Your task to perform on an android device: check battery use Image 0: 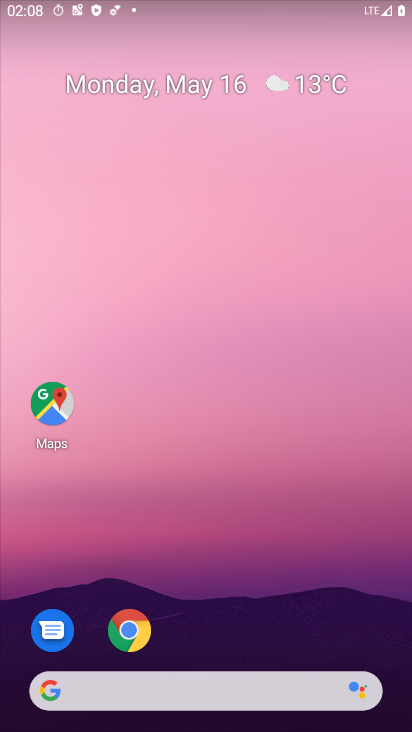
Step 0: drag from (271, 640) to (348, 222)
Your task to perform on an android device: check battery use Image 1: 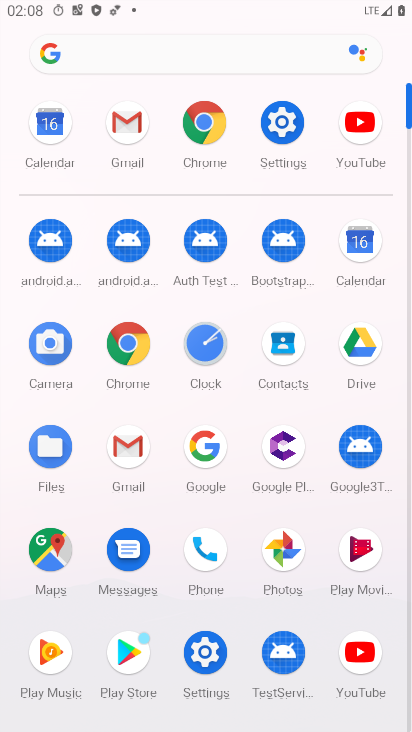
Step 1: click (204, 667)
Your task to perform on an android device: check battery use Image 2: 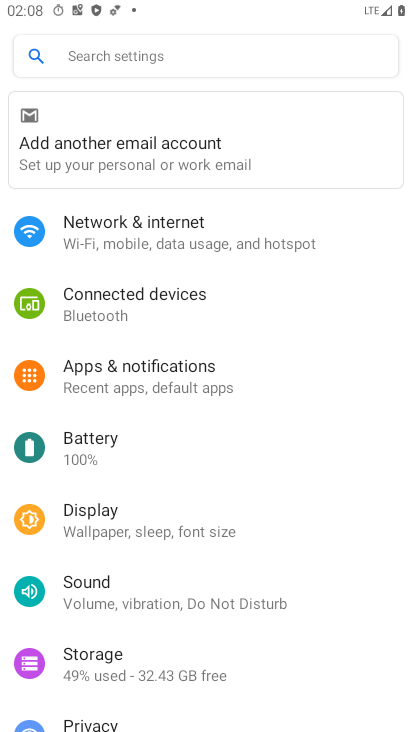
Step 2: click (107, 454)
Your task to perform on an android device: check battery use Image 3: 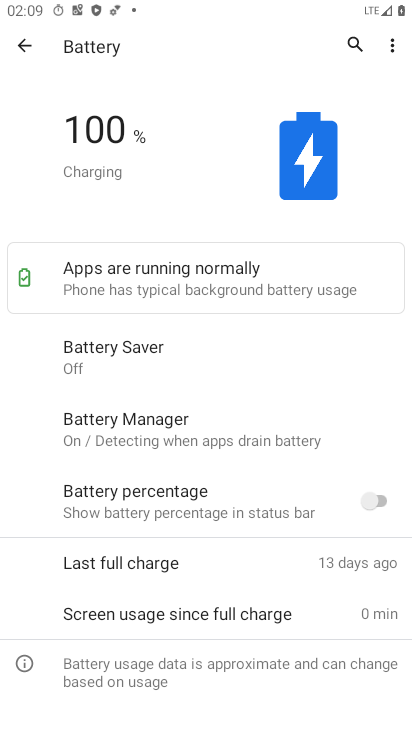
Step 3: task complete